Your task to perform on an android device: Go to Maps Image 0: 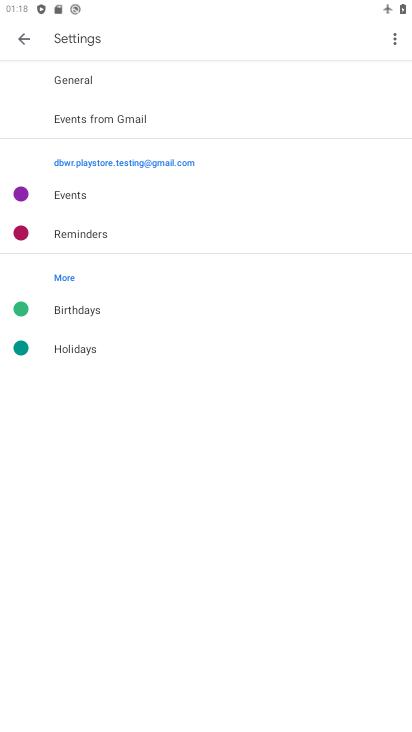
Step 0: press home button
Your task to perform on an android device: Go to Maps Image 1: 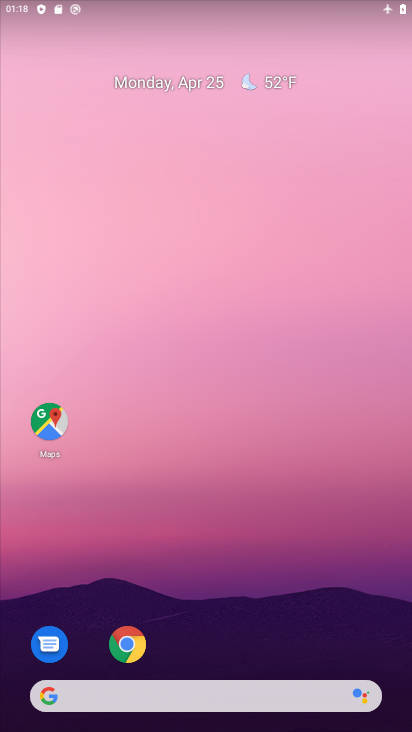
Step 1: click (61, 417)
Your task to perform on an android device: Go to Maps Image 2: 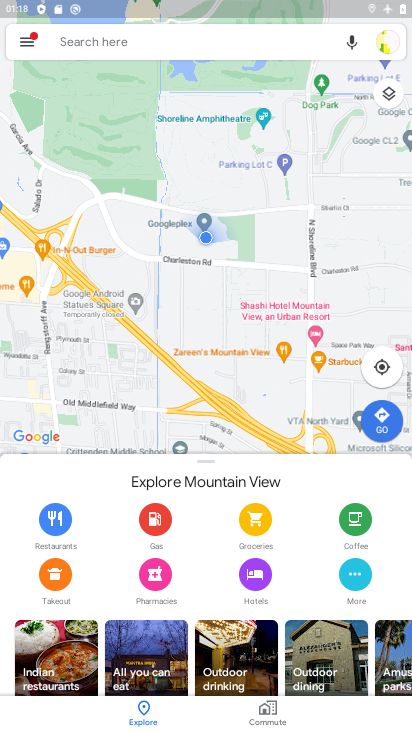
Step 2: click (139, 46)
Your task to perform on an android device: Go to Maps Image 3: 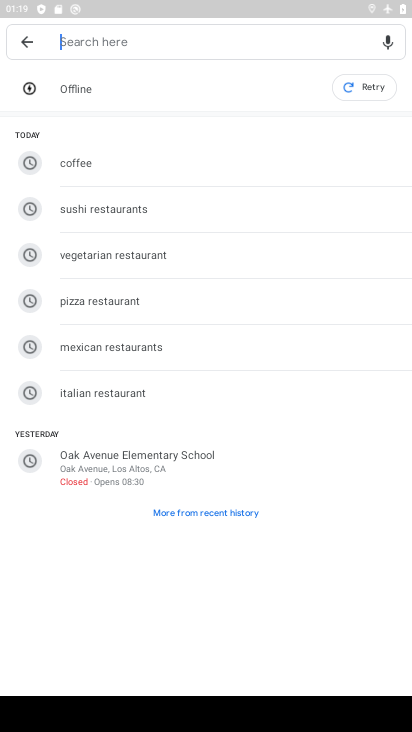
Step 3: click (182, 178)
Your task to perform on an android device: Go to Maps Image 4: 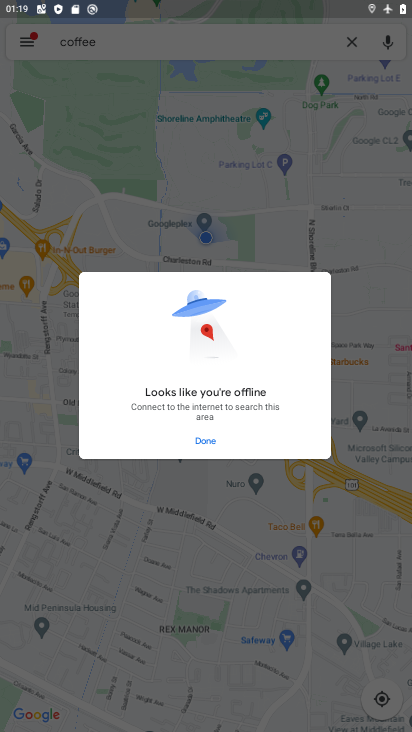
Step 4: task complete